Your task to perform on an android device: Open privacy settings Image 0: 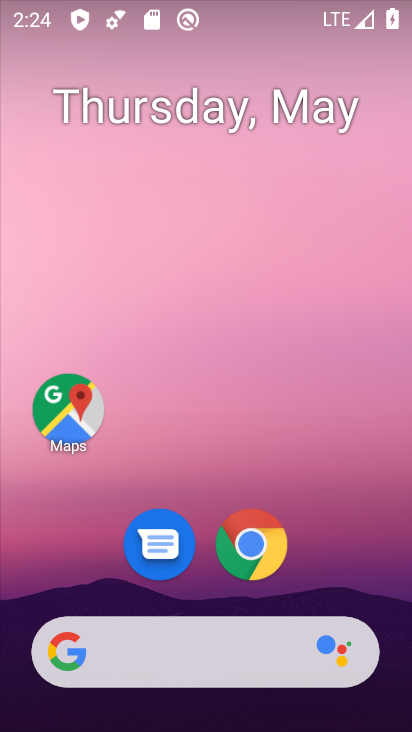
Step 0: drag from (215, 722) to (118, 56)
Your task to perform on an android device: Open privacy settings Image 1: 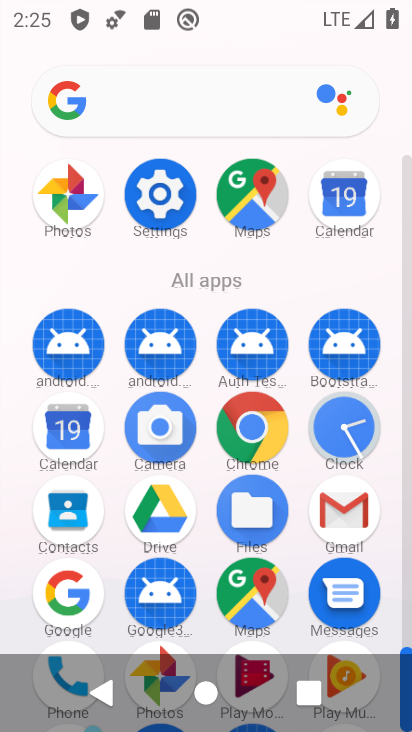
Step 1: click (160, 189)
Your task to perform on an android device: Open privacy settings Image 2: 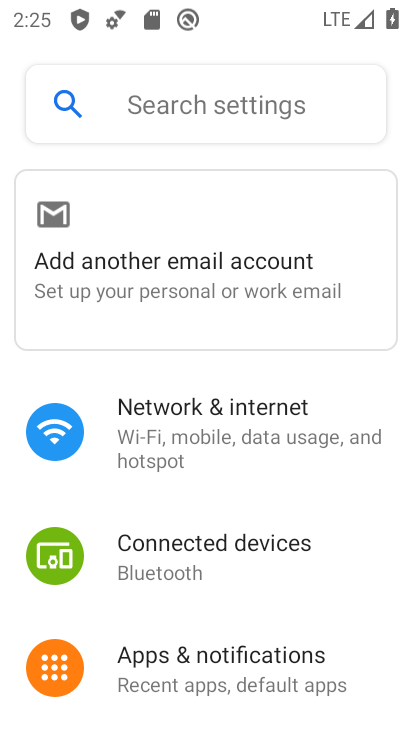
Step 2: drag from (230, 604) to (189, 127)
Your task to perform on an android device: Open privacy settings Image 3: 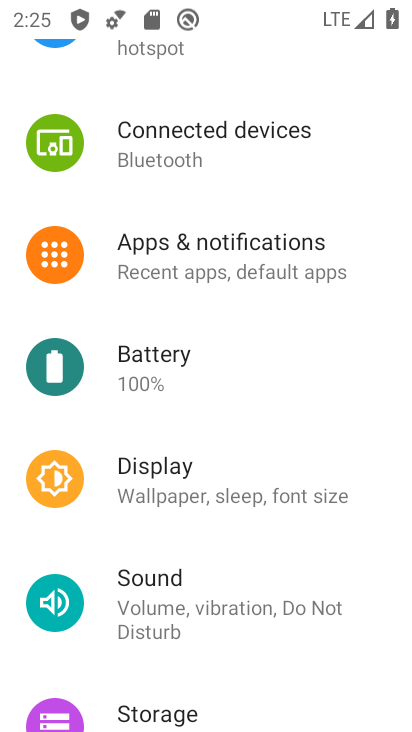
Step 3: drag from (320, 651) to (230, 212)
Your task to perform on an android device: Open privacy settings Image 4: 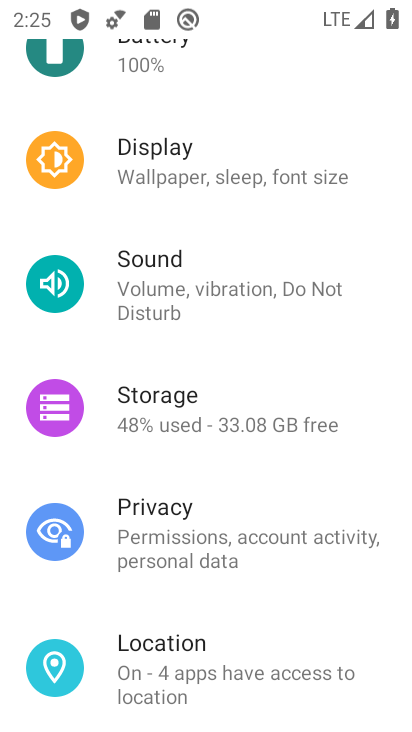
Step 4: click (186, 545)
Your task to perform on an android device: Open privacy settings Image 5: 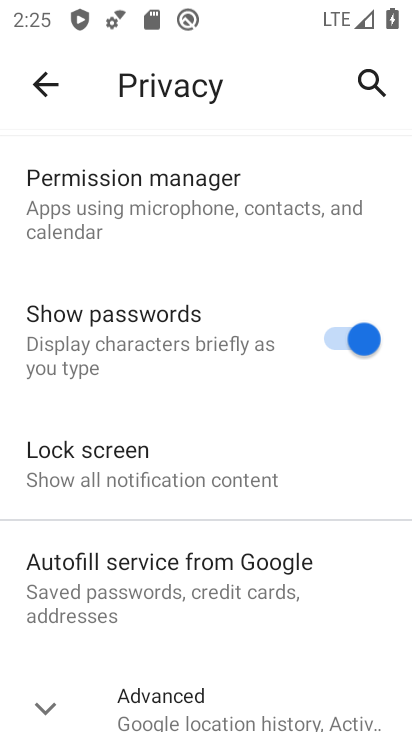
Step 5: task complete